Your task to perform on an android device: Open the stopwatch Image 0: 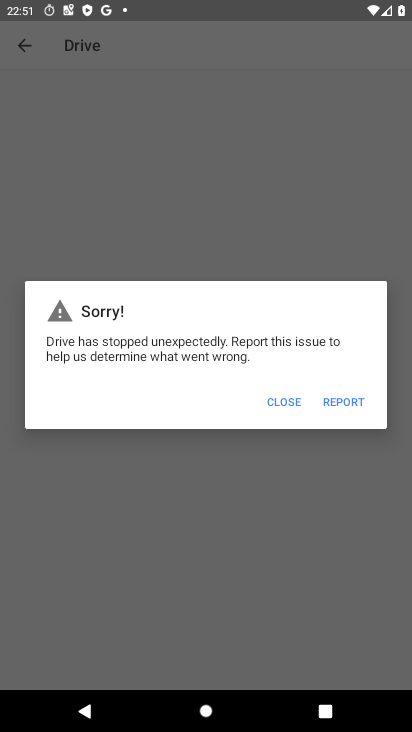
Step 0: press home button
Your task to perform on an android device: Open the stopwatch Image 1: 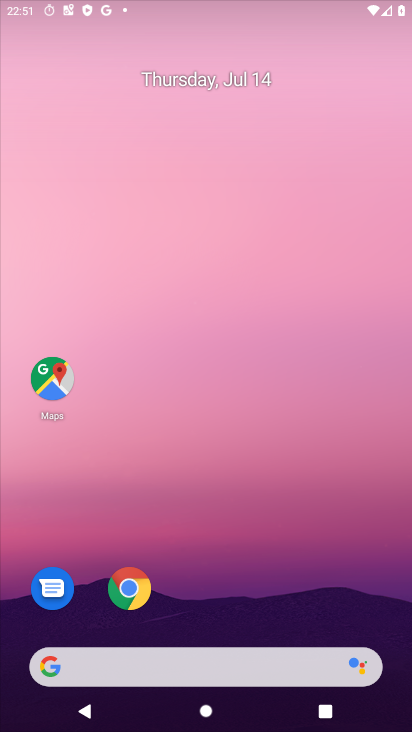
Step 1: drag from (217, 597) to (241, 129)
Your task to perform on an android device: Open the stopwatch Image 2: 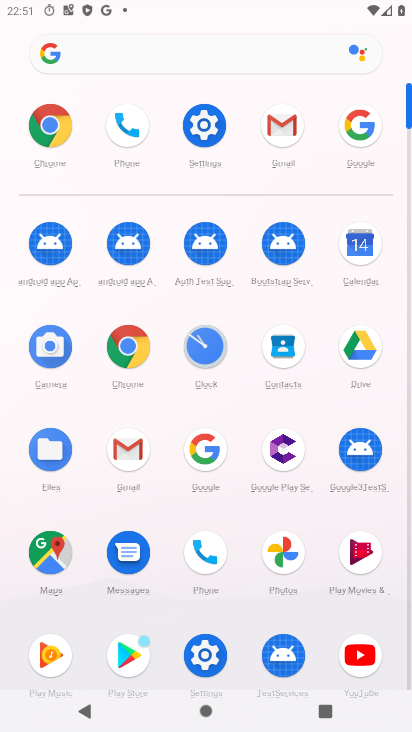
Step 2: click (213, 349)
Your task to perform on an android device: Open the stopwatch Image 3: 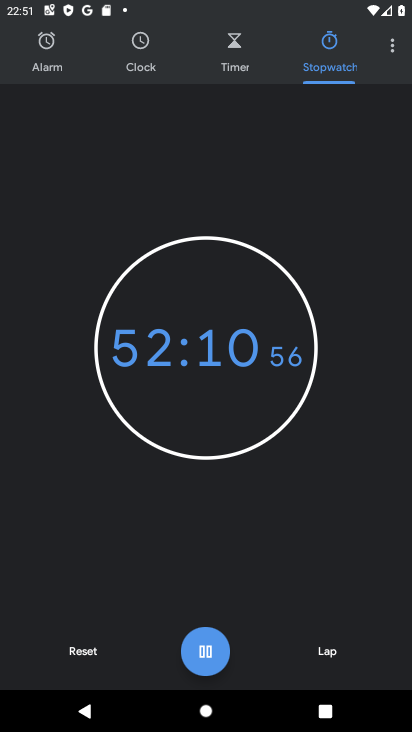
Step 3: task complete